Your task to perform on an android device: open a bookmark in the chrome app Image 0: 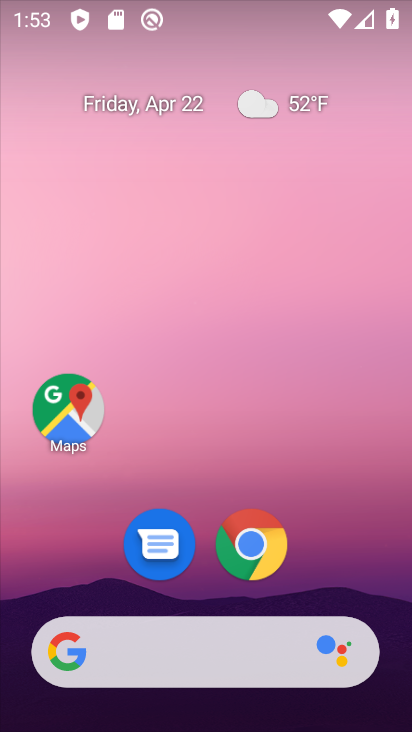
Step 0: click (256, 541)
Your task to perform on an android device: open a bookmark in the chrome app Image 1: 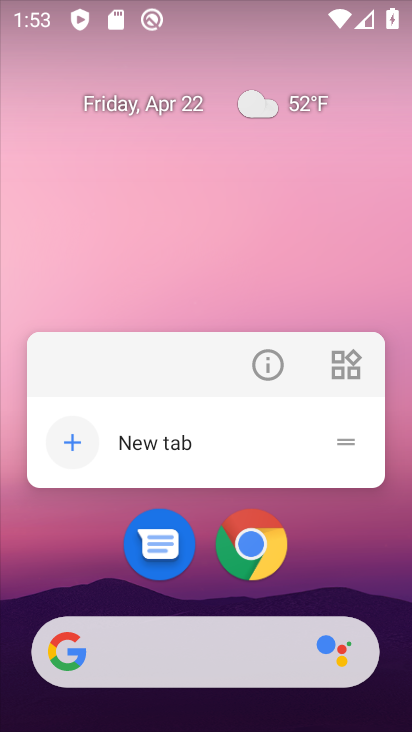
Step 1: click (252, 543)
Your task to perform on an android device: open a bookmark in the chrome app Image 2: 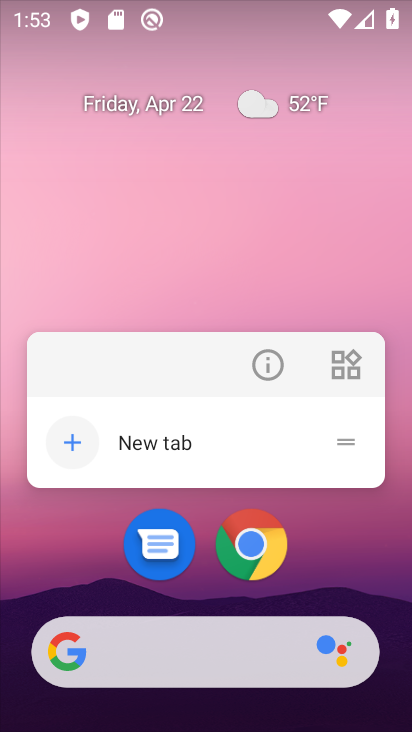
Step 2: click (249, 549)
Your task to perform on an android device: open a bookmark in the chrome app Image 3: 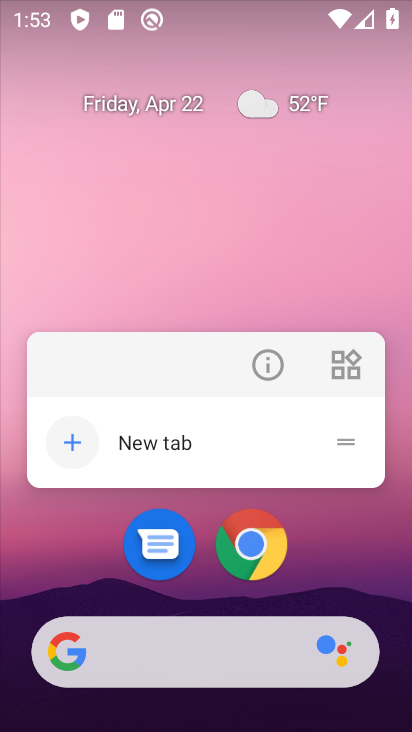
Step 3: click (319, 576)
Your task to perform on an android device: open a bookmark in the chrome app Image 4: 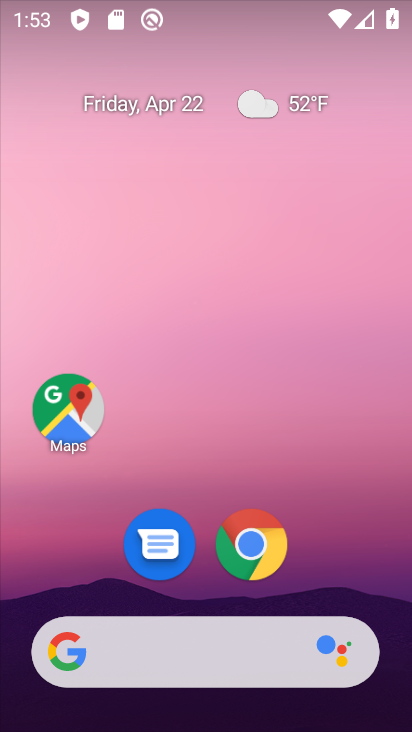
Step 4: drag from (320, 574) to (310, 106)
Your task to perform on an android device: open a bookmark in the chrome app Image 5: 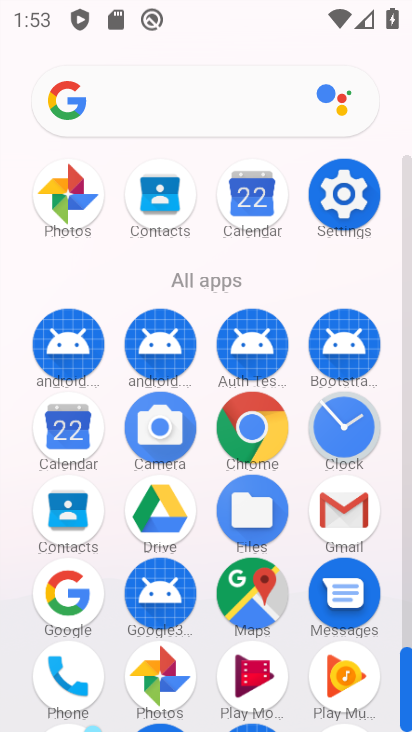
Step 5: click (248, 426)
Your task to perform on an android device: open a bookmark in the chrome app Image 6: 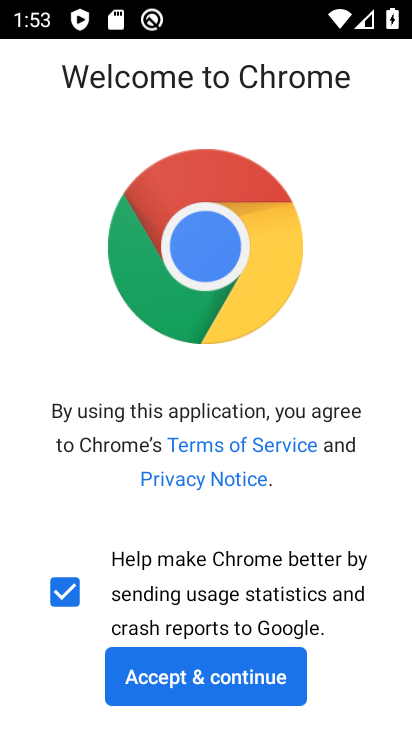
Step 6: click (198, 689)
Your task to perform on an android device: open a bookmark in the chrome app Image 7: 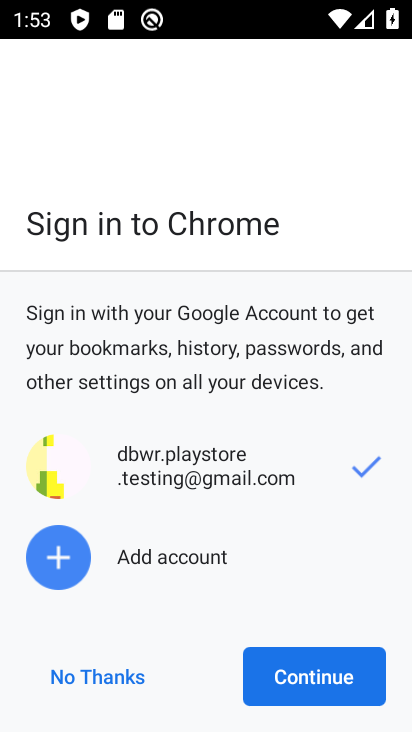
Step 7: click (273, 687)
Your task to perform on an android device: open a bookmark in the chrome app Image 8: 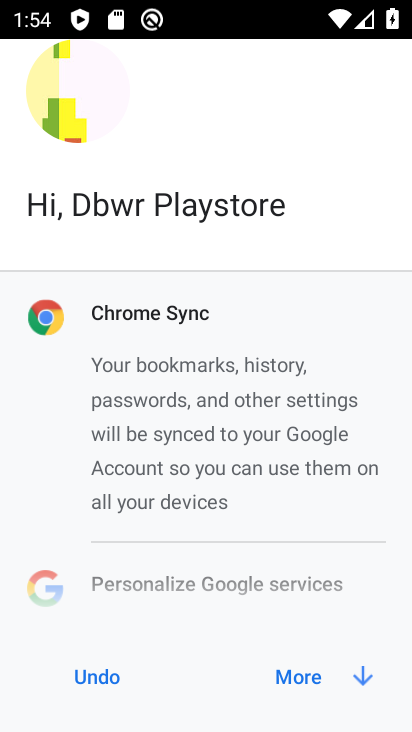
Step 8: click (275, 678)
Your task to perform on an android device: open a bookmark in the chrome app Image 9: 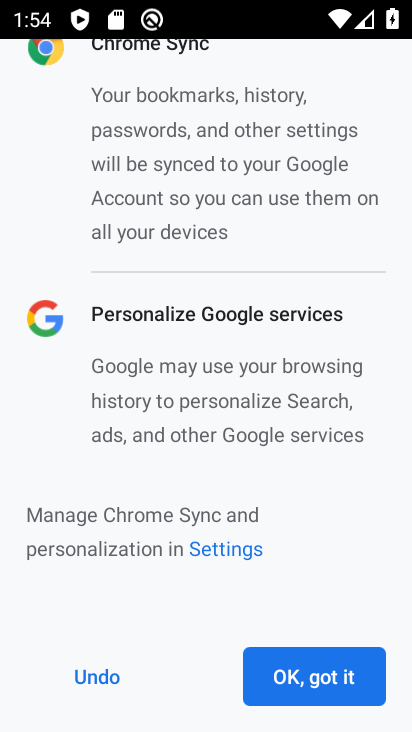
Step 9: click (275, 678)
Your task to perform on an android device: open a bookmark in the chrome app Image 10: 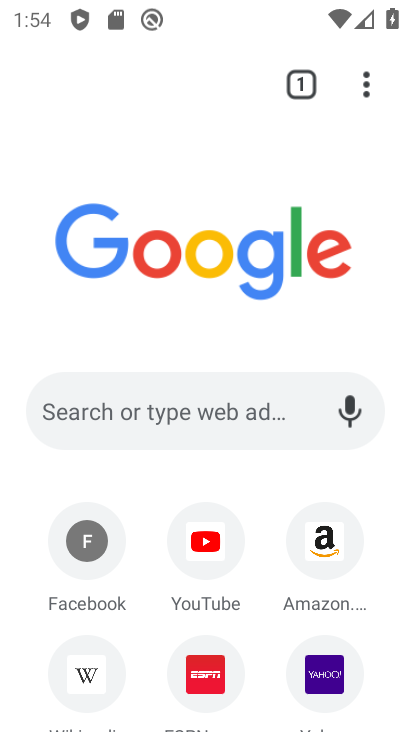
Step 10: task complete